Your task to perform on an android device: toggle translation in the chrome app Image 0: 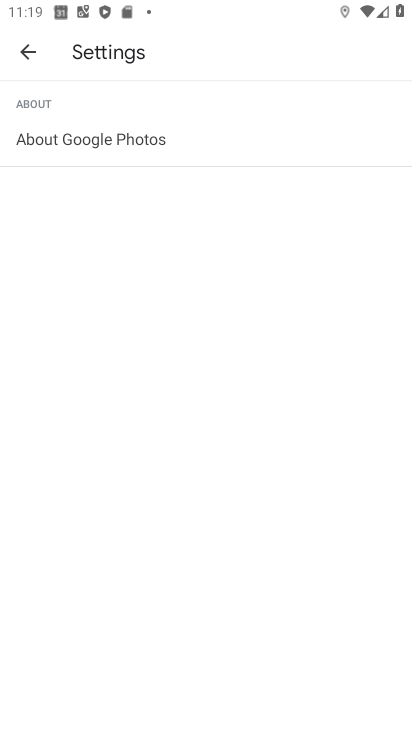
Step 0: press home button
Your task to perform on an android device: toggle translation in the chrome app Image 1: 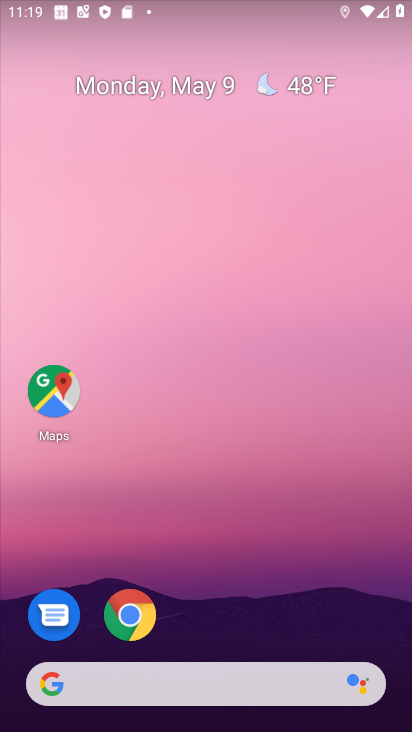
Step 1: click (134, 615)
Your task to perform on an android device: toggle translation in the chrome app Image 2: 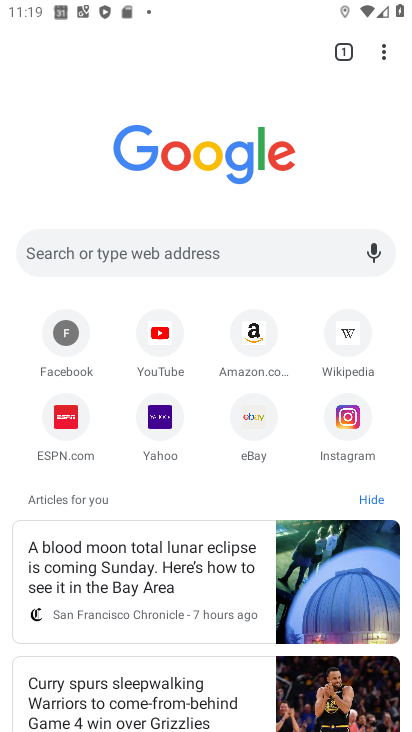
Step 2: click (383, 58)
Your task to perform on an android device: toggle translation in the chrome app Image 3: 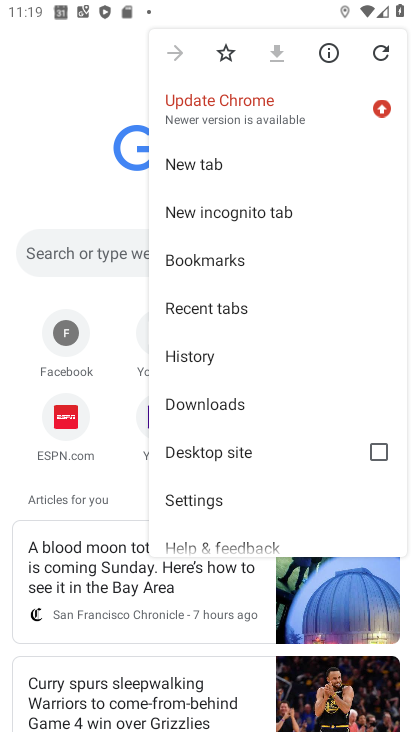
Step 3: click (223, 498)
Your task to perform on an android device: toggle translation in the chrome app Image 4: 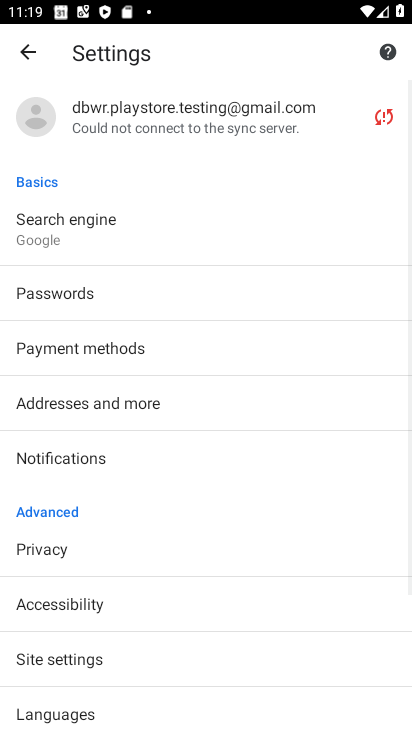
Step 4: drag from (186, 616) to (201, 243)
Your task to perform on an android device: toggle translation in the chrome app Image 5: 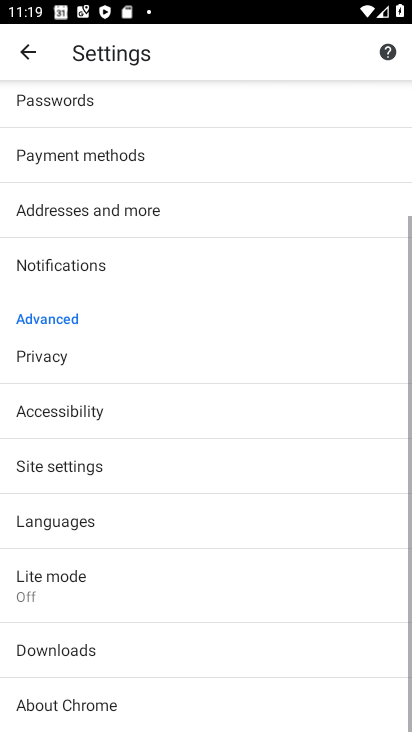
Step 5: click (117, 531)
Your task to perform on an android device: toggle translation in the chrome app Image 6: 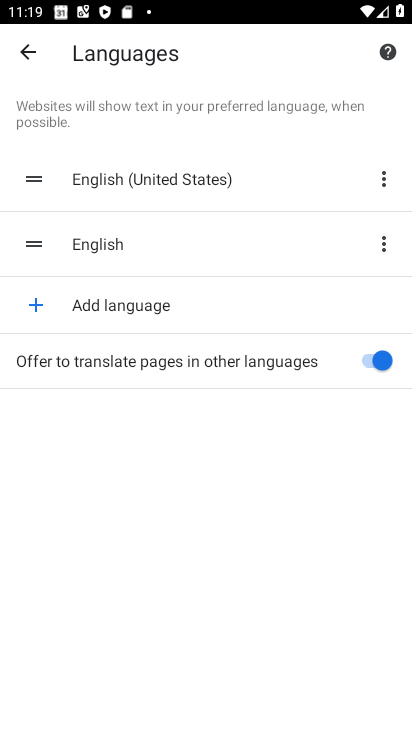
Step 6: click (367, 360)
Your task to perform on an android device: toggle translation in the chrome app Image 7: 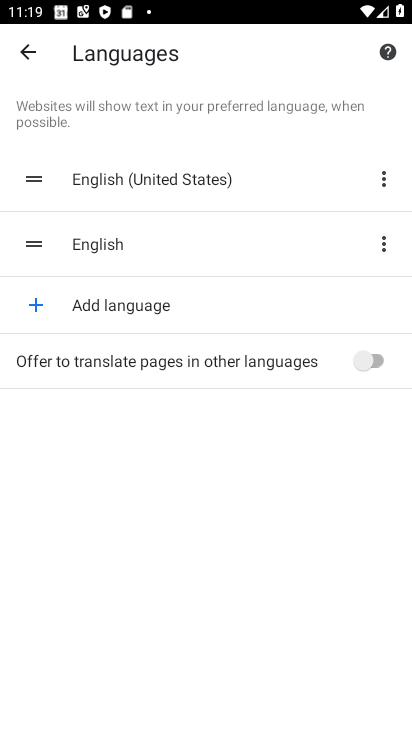
Step 7: task complete